Your task to perform on an android device: toggle translation in the chrome app Image 0: 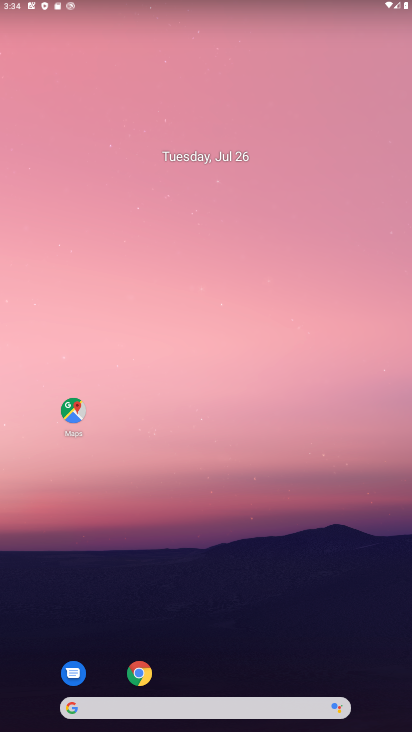
Step 0: click (140, 685)
Your task to perform on an android device: toggle translation in the chrome app Image 1: 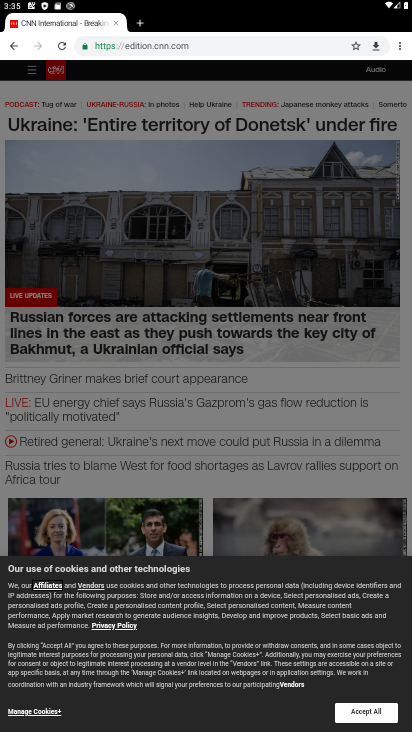
Step 1: drag from (401, 47) to (324, 278)
Your task to perform on an android device: toggle translation in the chrome app Image 2: 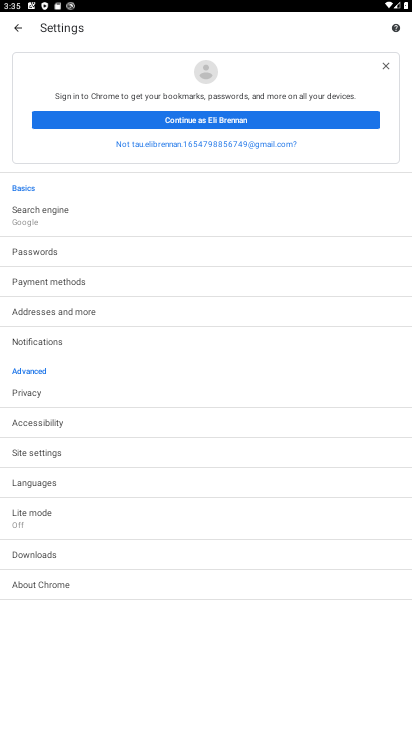
Step 2: click (37, 477)
Your task to perform on an android device: toggle translation in the chrome app Image 3: 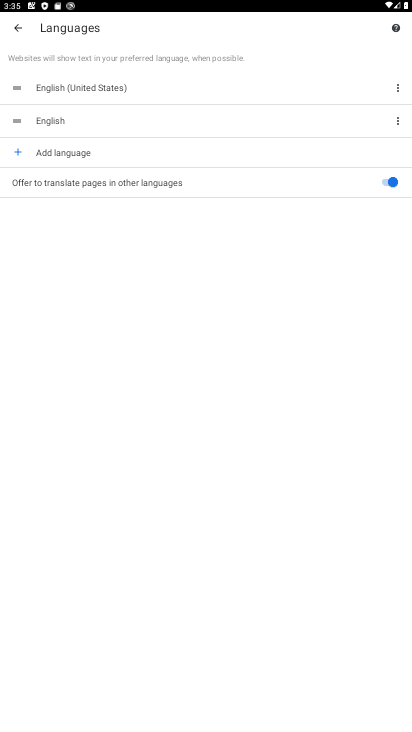
Step 3: click (389, 185)
Your task to perform on an android device: toggle translation in the chrome app Image 4: 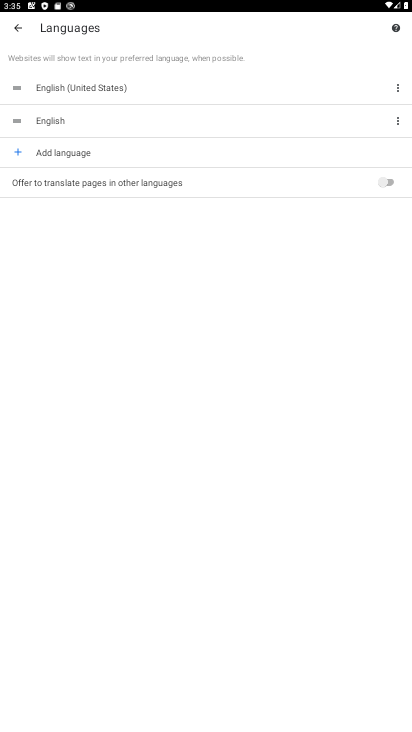
Step 4: task complete